Your task to perform on an android device: install app "Google Play services" Image 0: 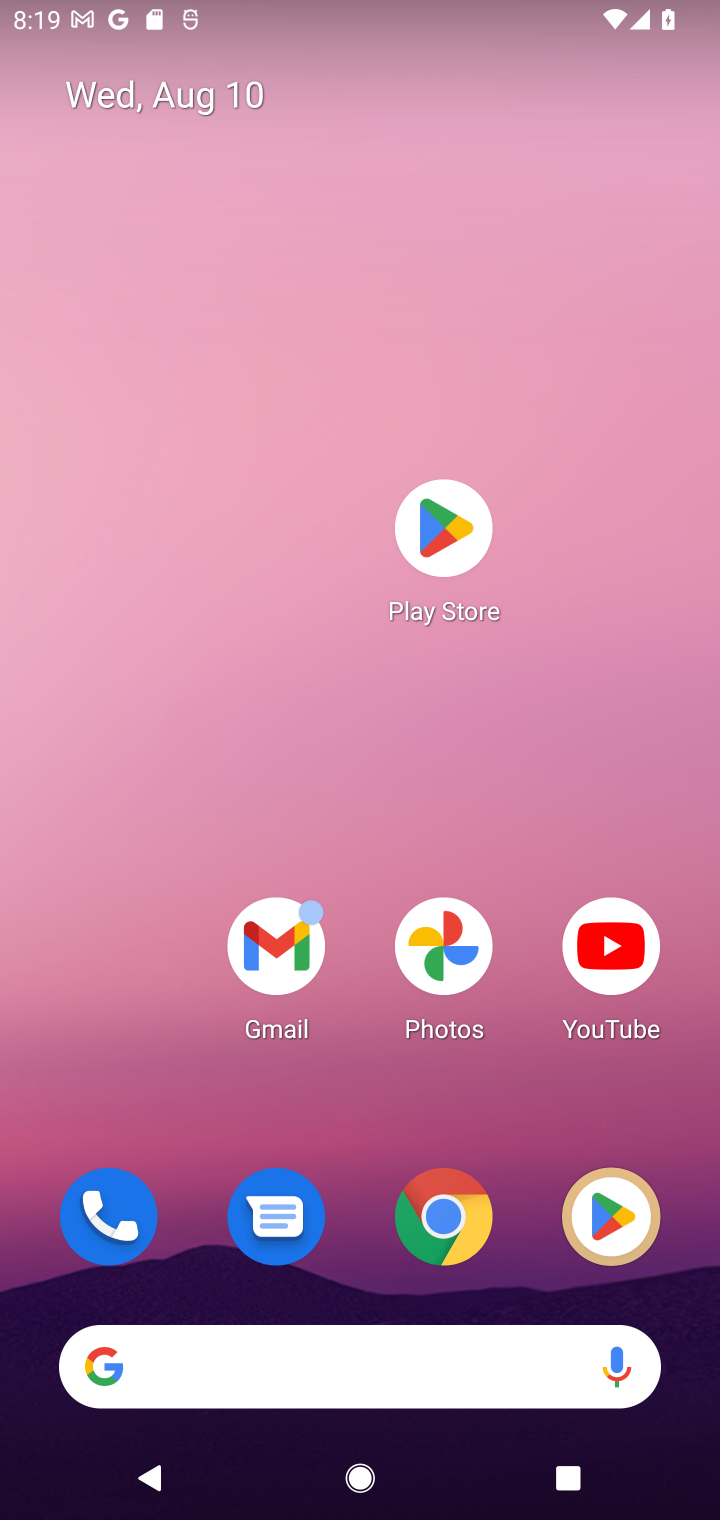
Step 0: click (438, 527)
Your task to perform on an android device: install app "Google Play services" Image 1: 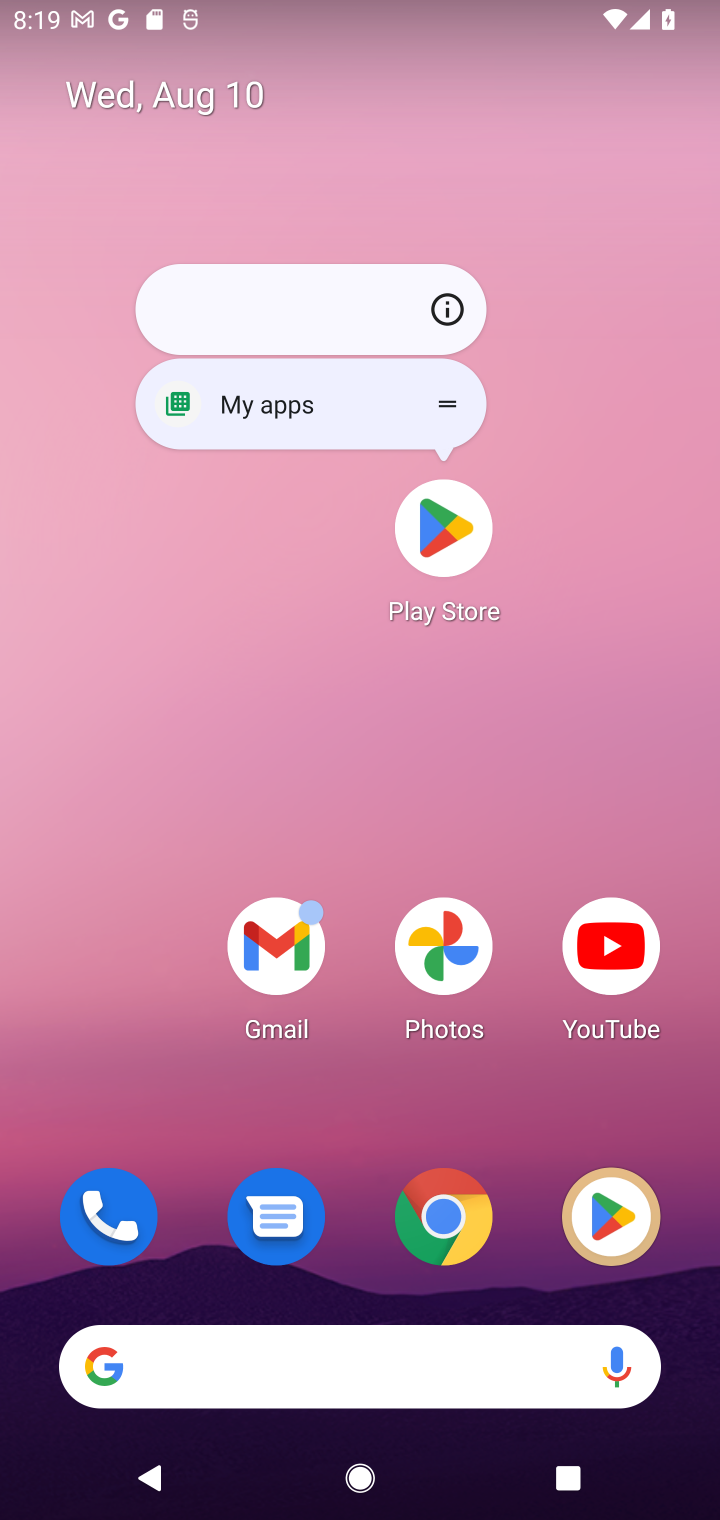
Step 1: click (438, 529)
Your task to perform on an android device: install app "Google Play services" Image 2: 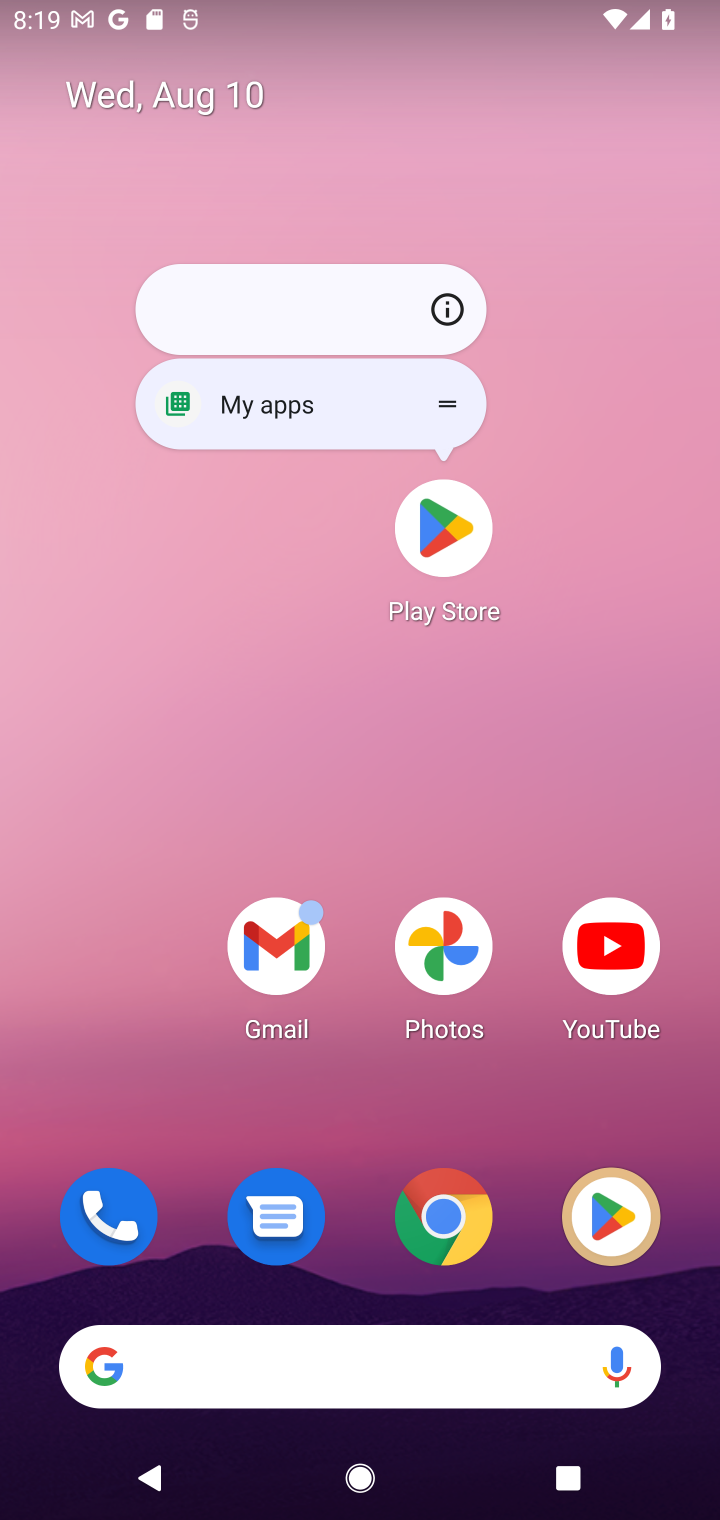
Step 2: click (438, 531)
Your task to perform on an android device: install app "Google Play services" Image 3: 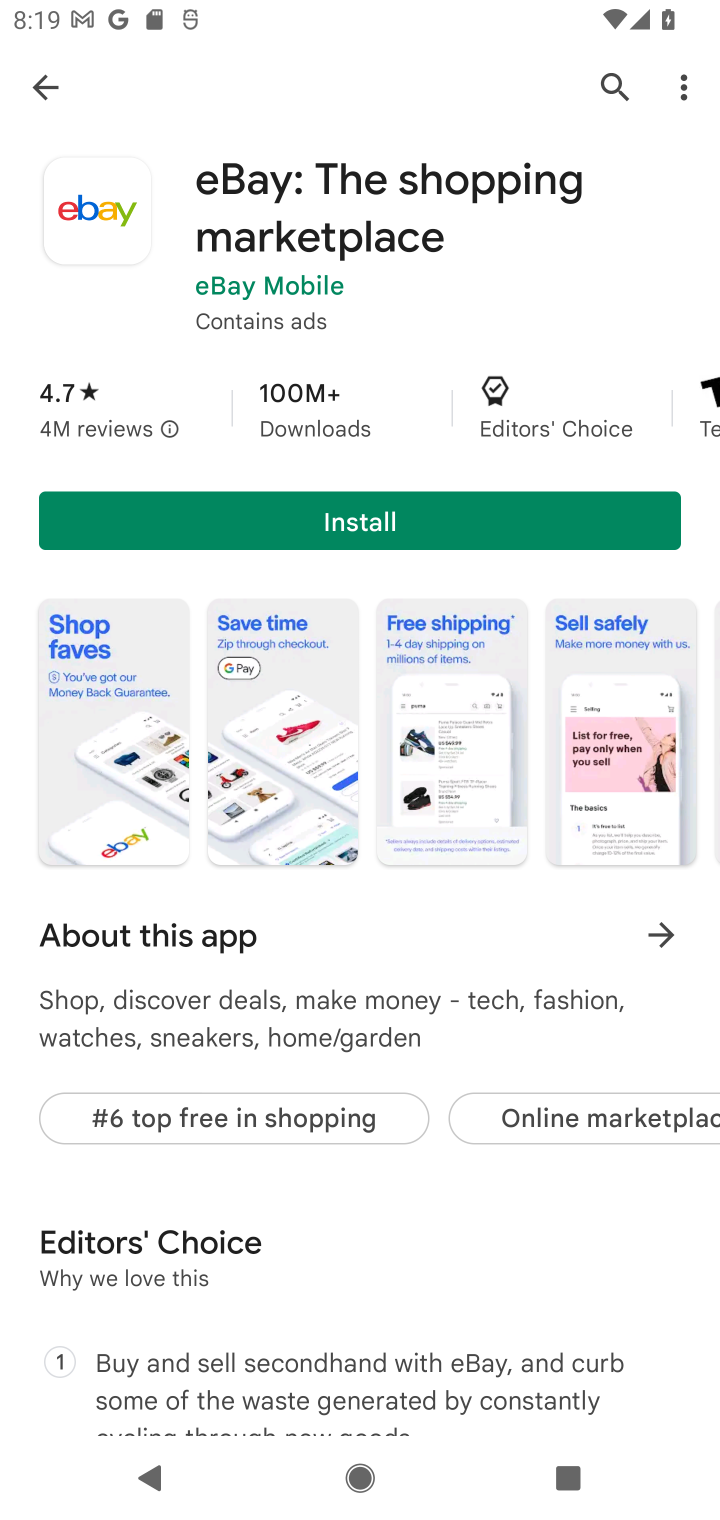
Step 3: click (619, 84)
Your task to perform on an android device: install app "Google Play services" Image 4: 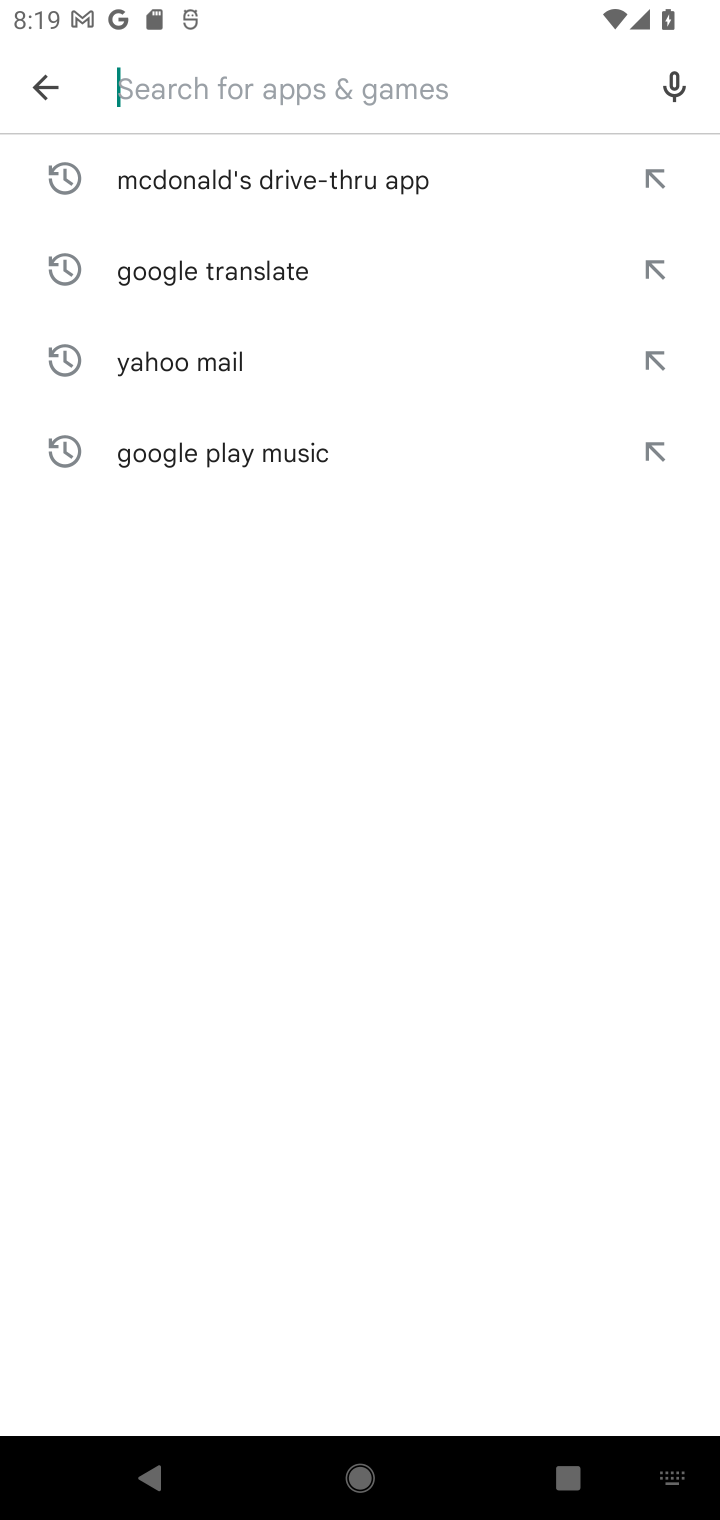
Step 4: type "Google Play services"
Your task to perform on an android device: install app "Google Play services" Image 5: 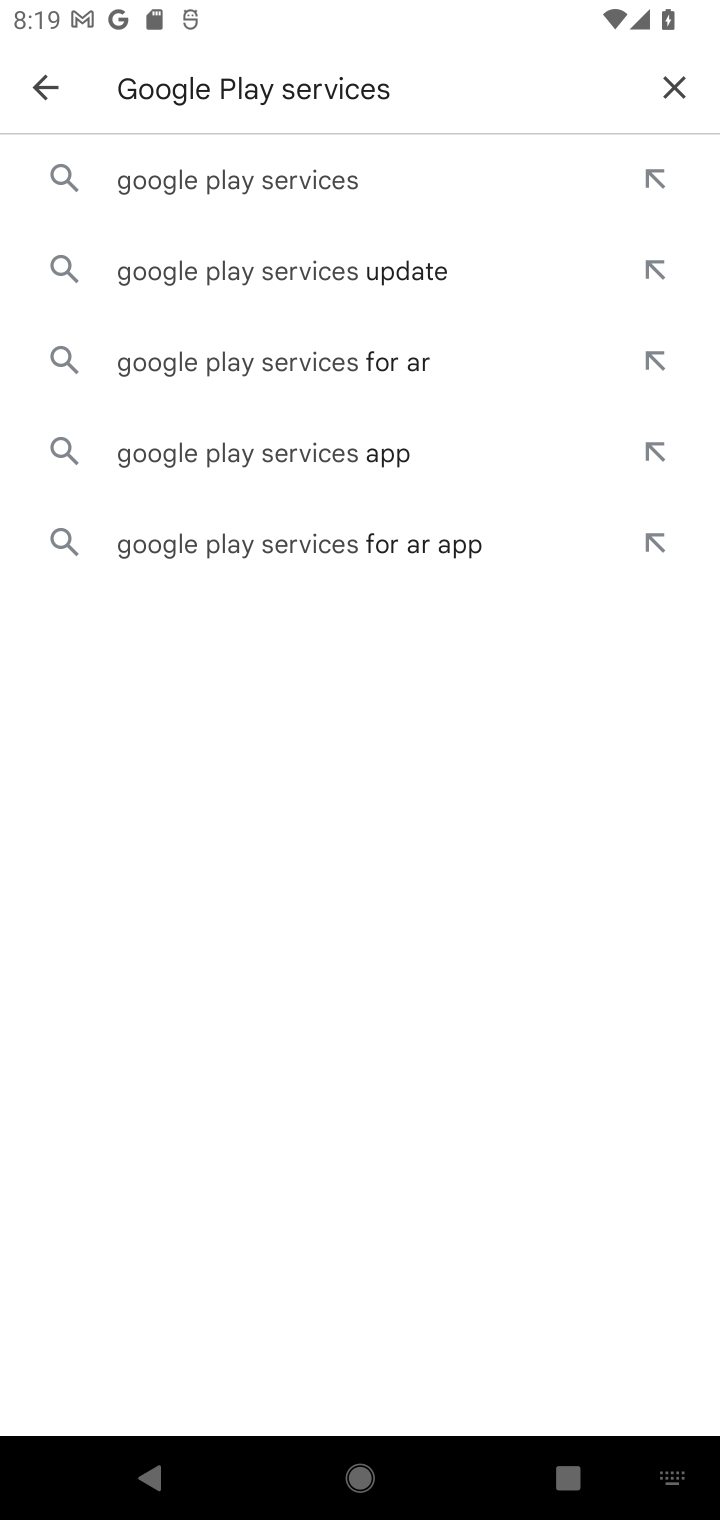
Step 5: click (314, 186)
Your task to perform on an android device: install app "Google Play services" Image 6: 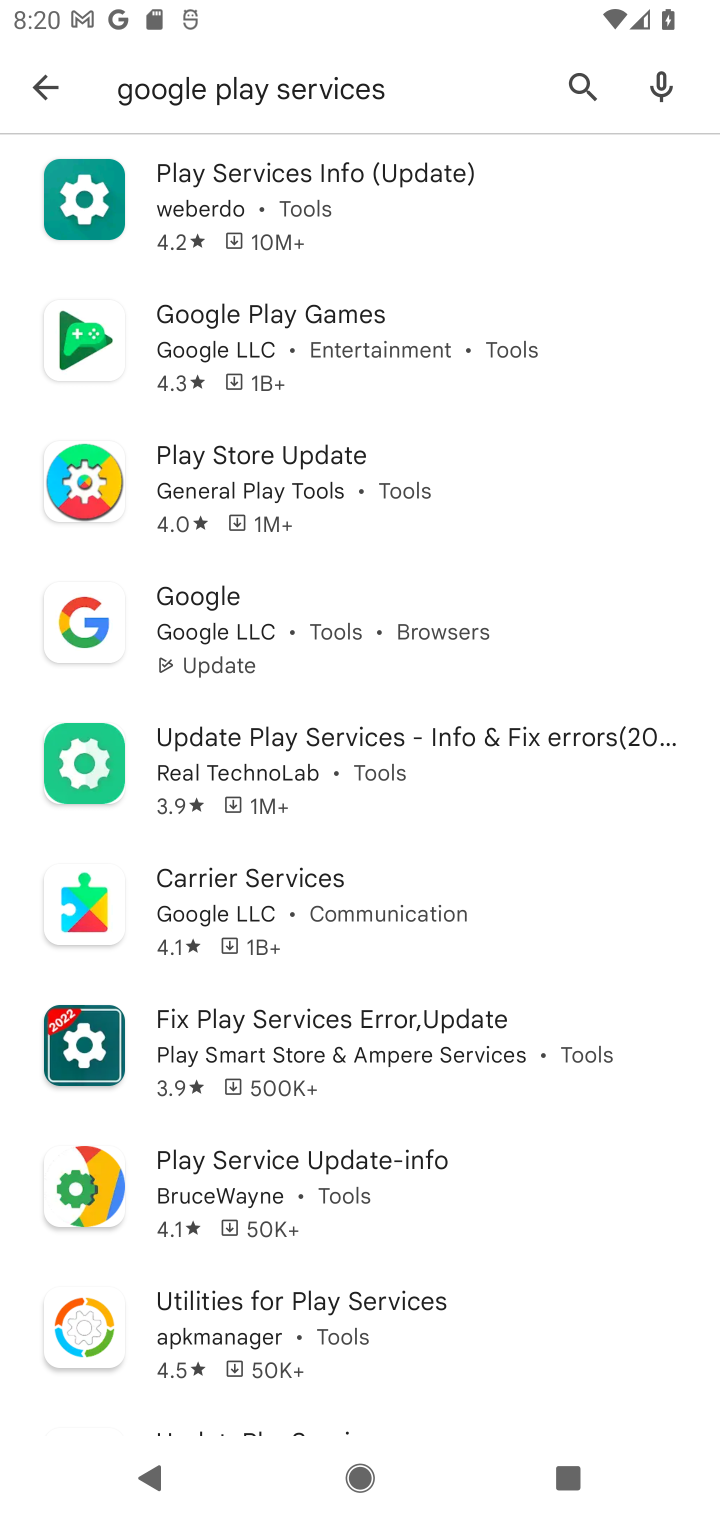
Step 6: task complete